Your task to perform on an android device: Open Android settings Image 0: 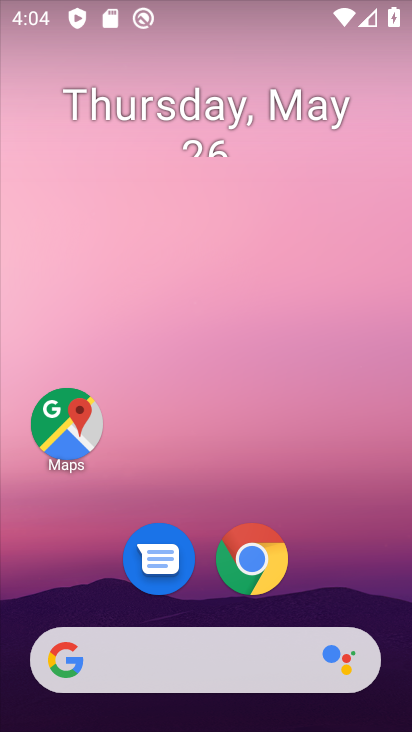
Step 0: drag from (330, 467) to (188, 9)
Your task to perform on an android device: Open Android settings Image 1: 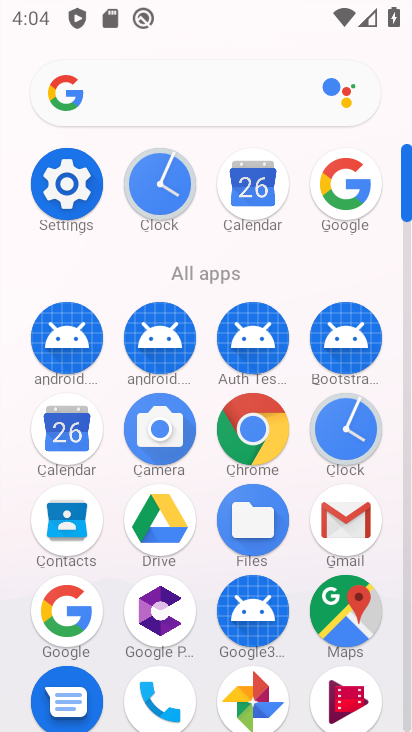
Step 1: click (66, 192)
Your task to perform on an android device: Open Android settings Image 2: 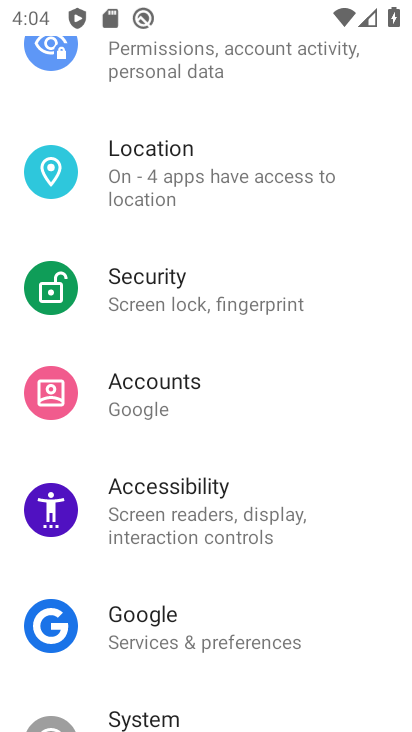
Step 2: drag from (291, 679) to (240, 348)
Your task to perform on an android device: Open Android settings Image 3: 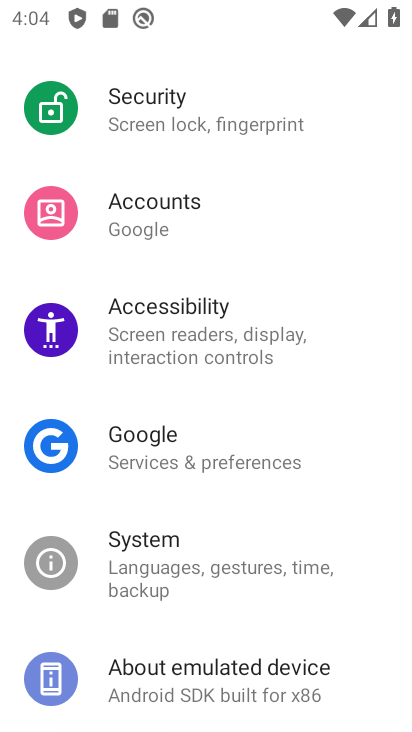
Step 3: click (248, 677)
Your task to perform on an android device: Open Android settings Image 4: 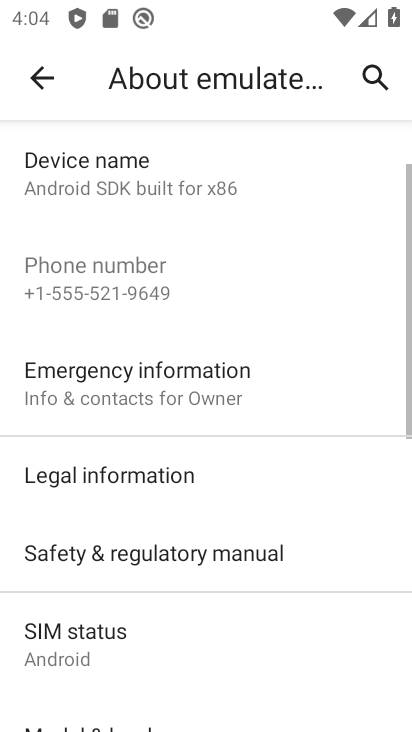
Step 4: drag from (239, 630) to (234, 257)
Your task to perform on an android device: Open Android settings Image 5: 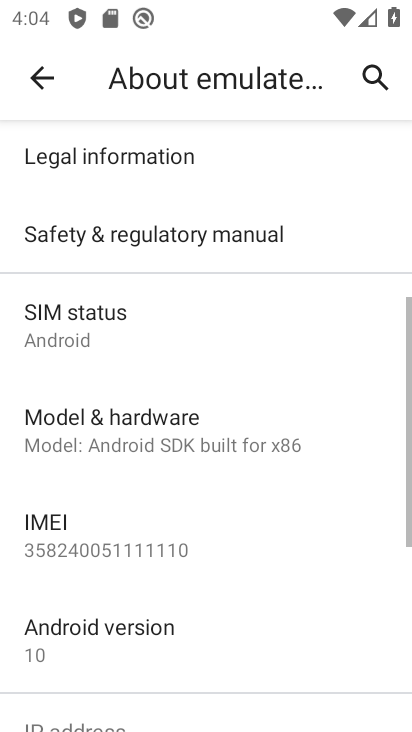
Step 5: click (176, 636)
Your task to perform on an android device: Open Android settings Image 6: 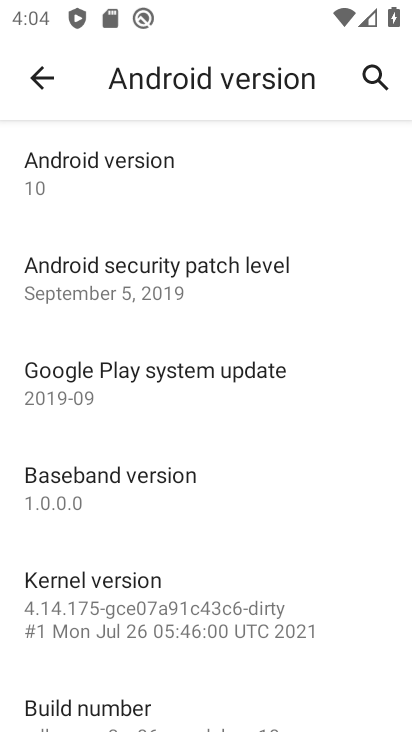
Step 6: task complete